Your task to perform on an android device: set the timer Image 0: 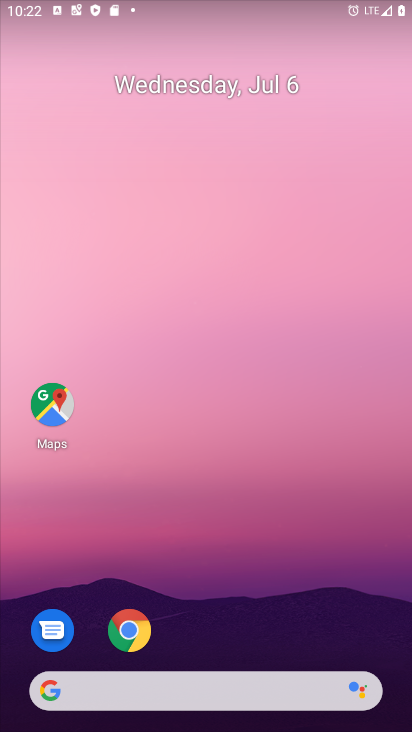
Step 0: drag from (390, 647) to (336, 176)
Your task to perform on an android device: set the timer Image 1: 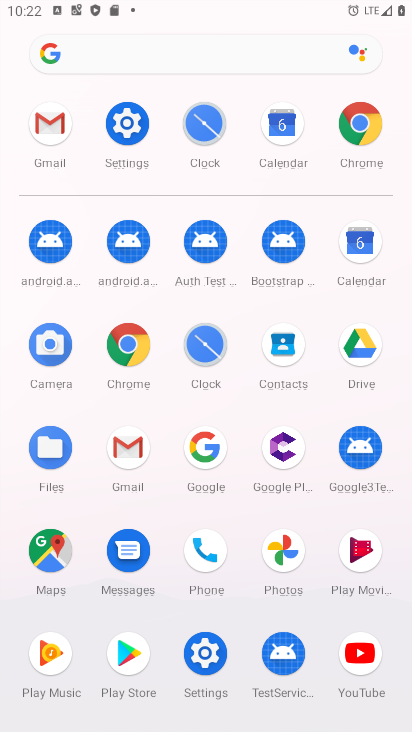
Step 1: click (205, 345)
Your task to perform on an android device: set the timer Image 2: 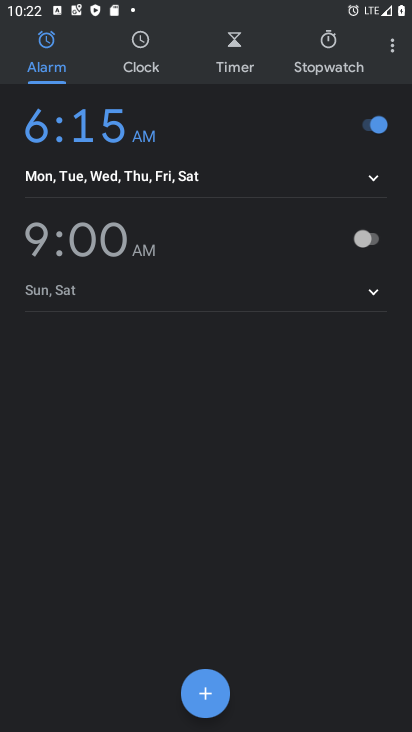
Step 2: click (234, 43)
Your task to perform on an android device: set the timer Image 3: 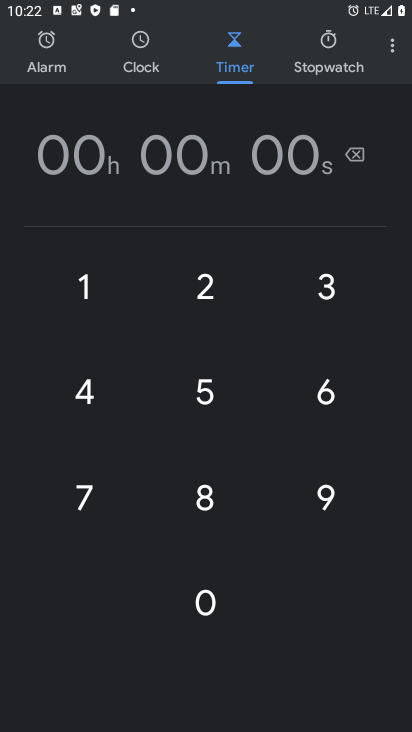
Step 3: click (85, 293)
Your task to perform on an android device: set the timer Image 4: 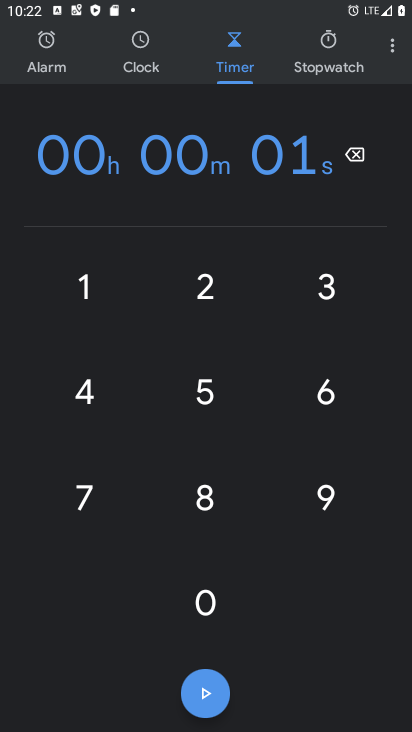
Step 4: click (201, 393)
Your task to perform on an android device: set the timer Image 5: 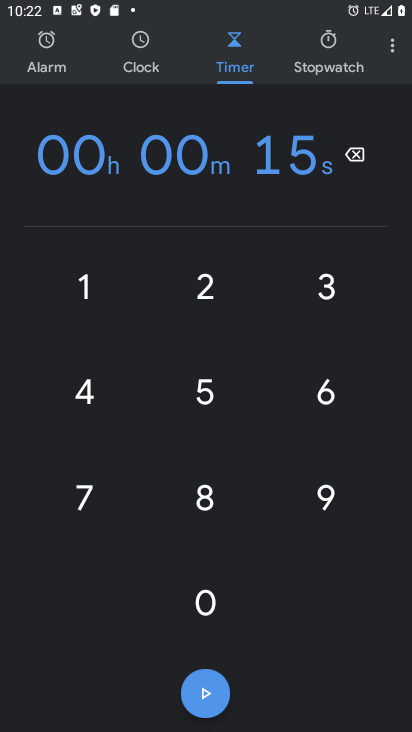
Step 5: click (219, 585)
Your task to perform on an android device: set the timer Image 6: 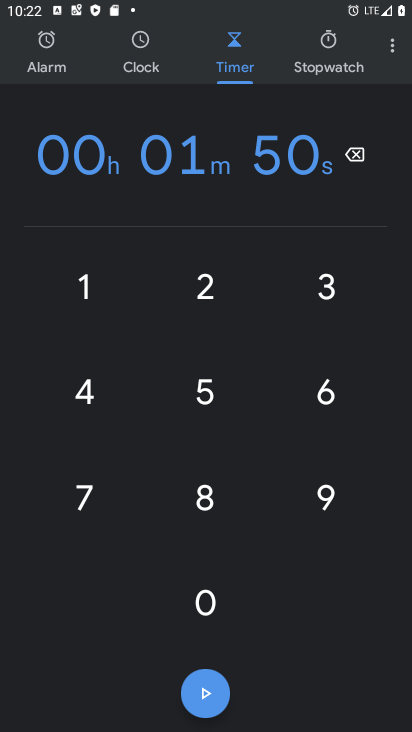
Step 6: click (219, 585)
Your task to perform on an android device: set the timer Image 7: 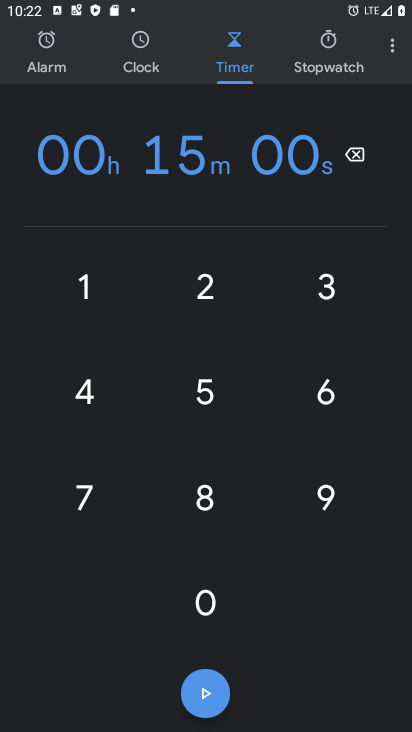
Step 7: click (219, 585)
Your task to perform on an android device: set the timer Image 8: 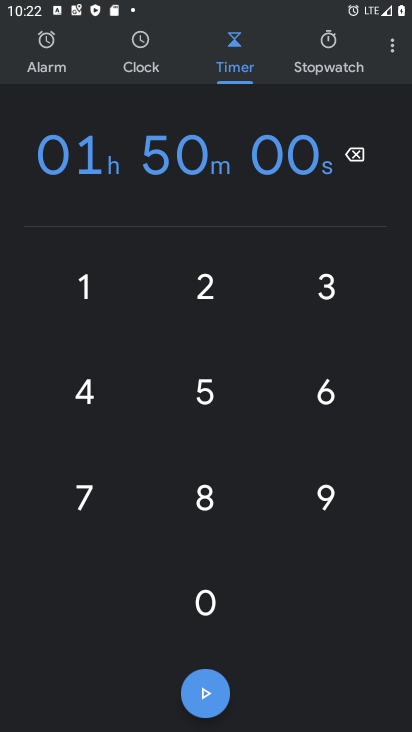
Step 8: task complete